Your task to perform on an android device: open the mobile data screen to see how much data has been used Image 0: 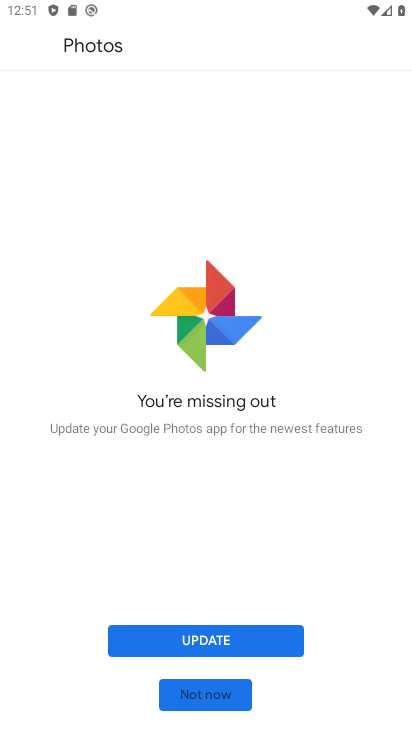
Step 0: press home button
Your task to perform on an android device: open the mobile data screen to see how much data has been used Image 1: 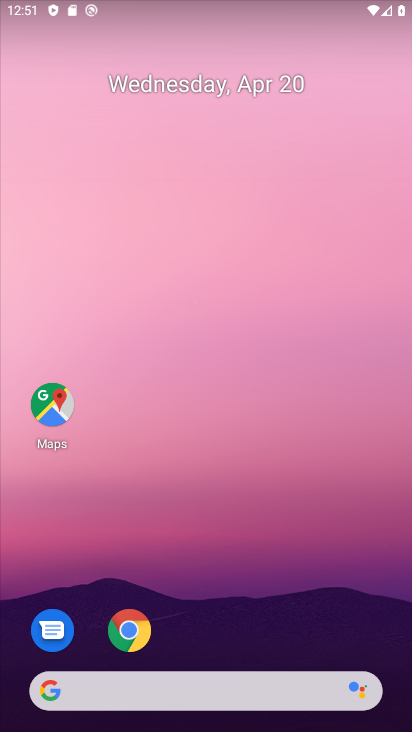
Step 1: drag from (343, 601) to (307, 249)
Your task to perform on an android device: open the mobile data screen to see how much data has been used Image 2: 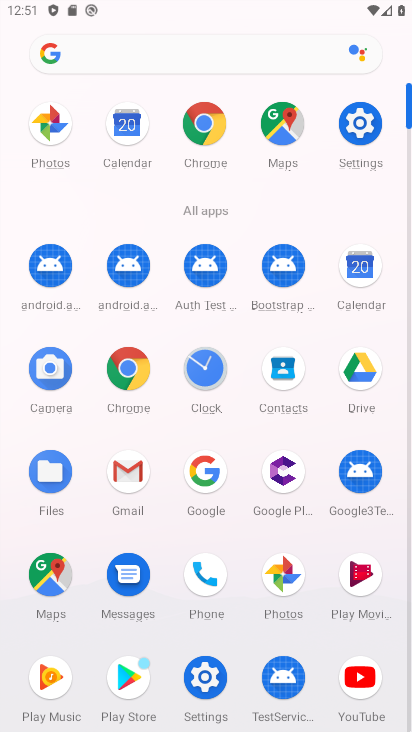
Step 2: click (370, 129)
Your task to perform on an android device: open the mobile data screen to see how much data has been used Image 3: 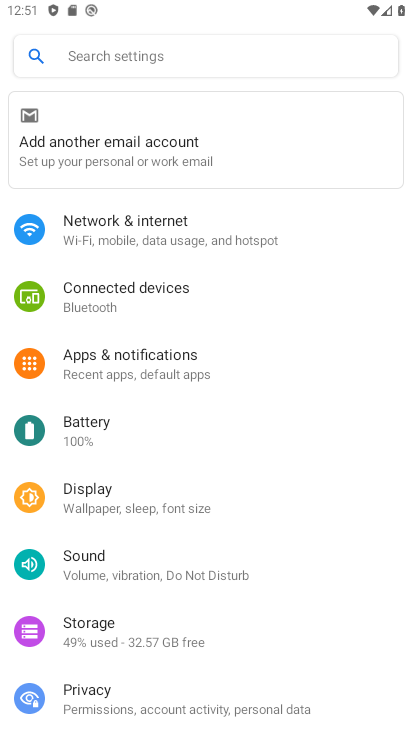
Step 3: click (192, 224)
Your task to perform on an android device: open the mobile data screen to see how much data has been used Image 4: 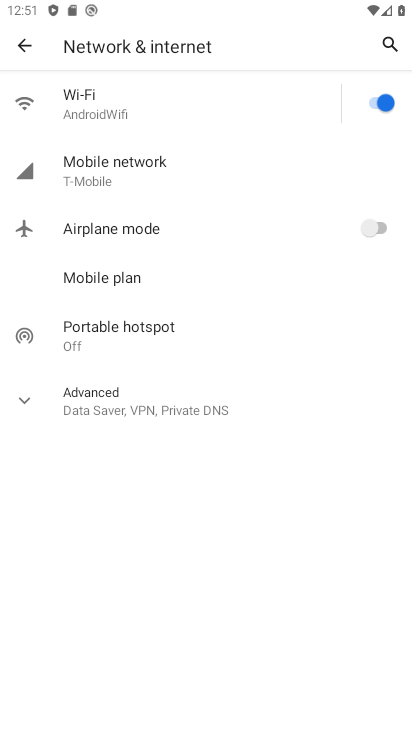
Step 4: click (209, 177)
Your task to perform on an android device: open the mobile data screen to see how much data has been used Image 5: 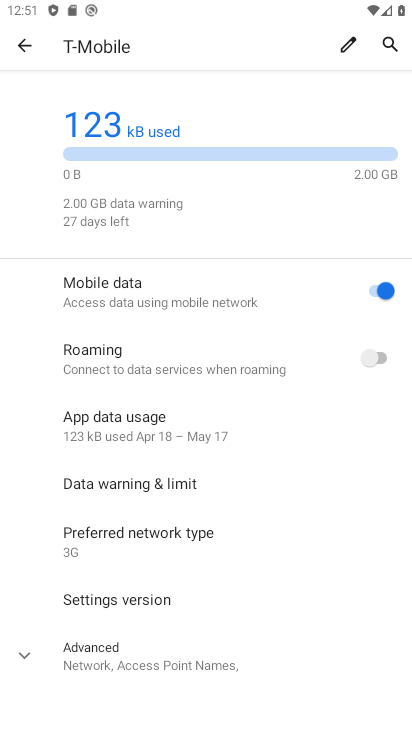
Step 5: click (125, 486)
Your task to perform on an android device: open the mobile data screen to see how much data has been used Image 6: 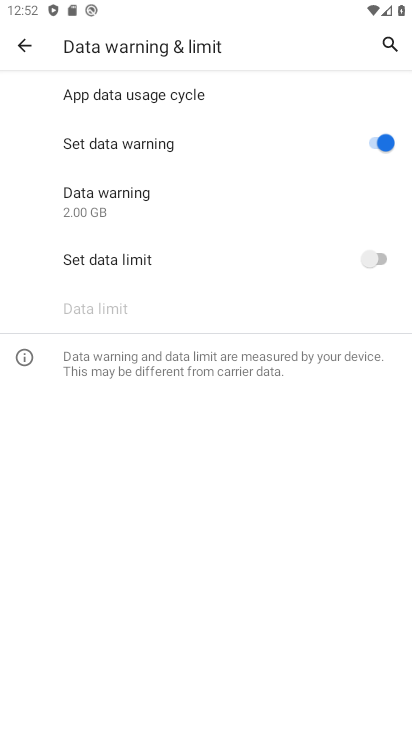
Step 6: task complete